Your task to perform on an android device: Go to location settings Image 0: 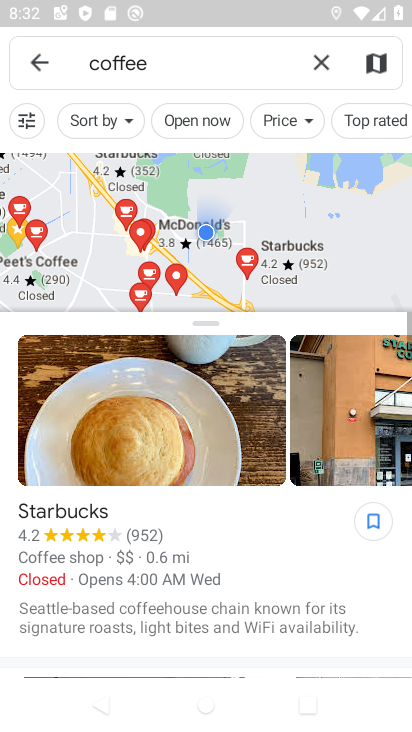
Step 0: press home button
Your task to perform on an android device: Go to location settings Image 1: 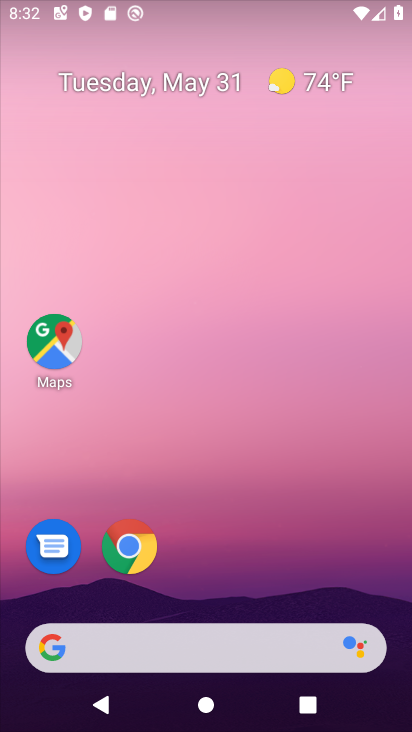
Step 1: drag from (220, 575) to (225, 71)
Your task to perform on an android device: Go to location settings Image 2: 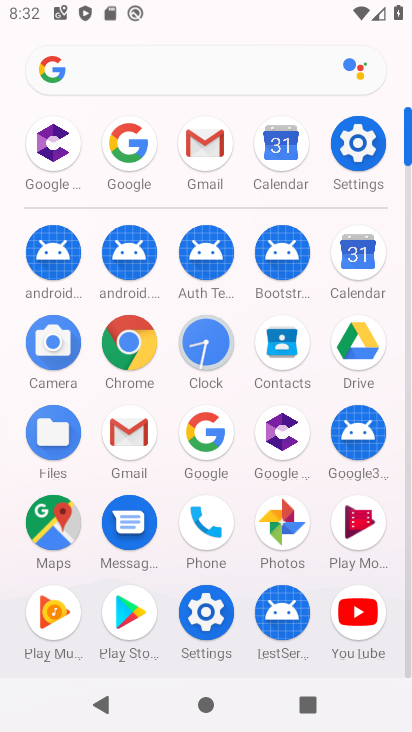
Step 2: click (367, 143)
Your task to perform on an android device: Go to location settings Image 3: 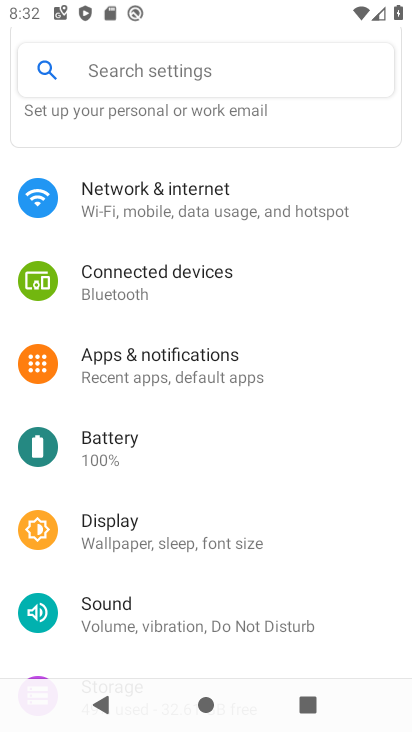
Step 3: drag from (211, 599) to (286, 141)
Your task to perform on an android device: Go to location settings Image 4: 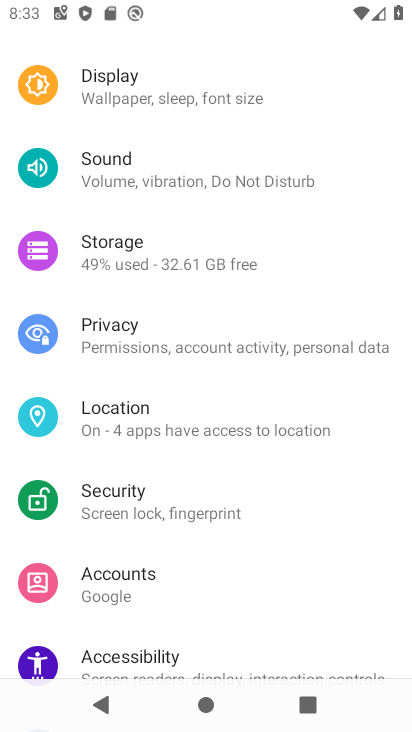
Step 4: click (177, 408)
Your task to perform on an android device: Go to location settings Image 5: 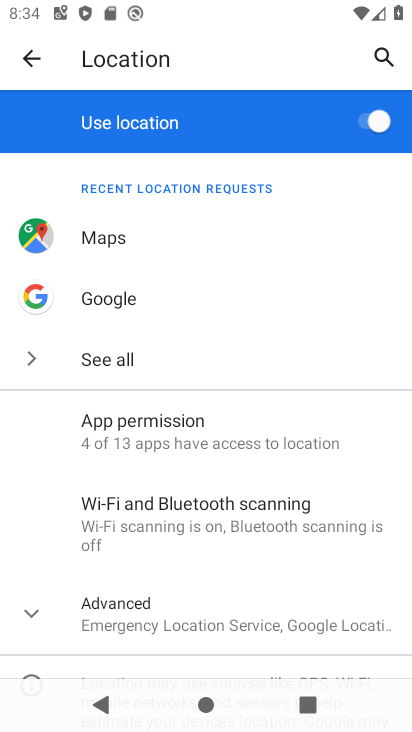
Step 5: task complete